Your task to perform on an android device: turn pop-ups off in chrome Image 0: 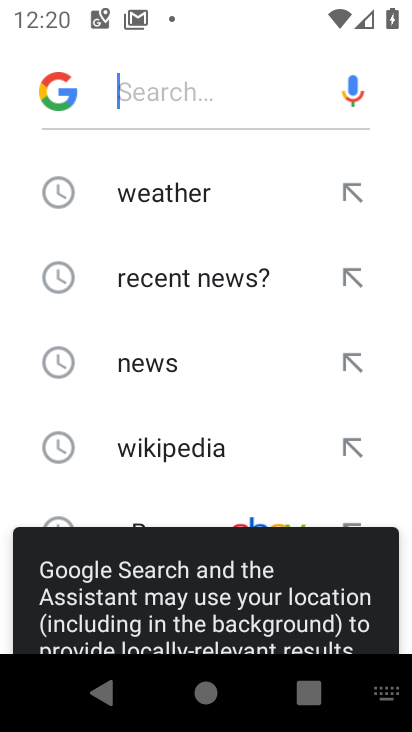
Step 0: press home button
Your task to perform on an android device: turn pop-ups off in chrome Image 1: 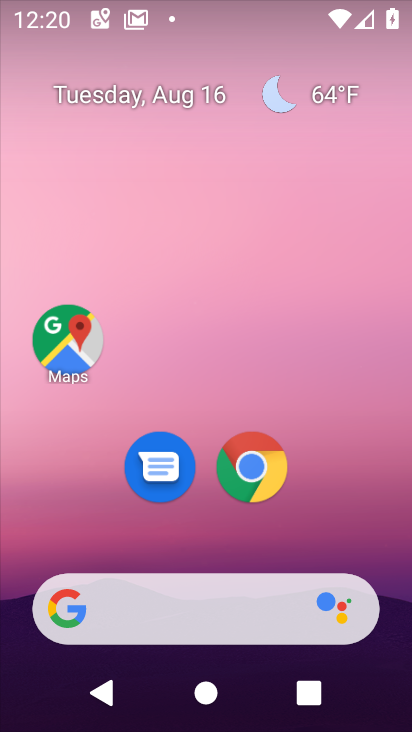
Step 1: drag from (357, 539) to (387, 101)
Your task to perform on an android device: turn pop-ups off in chrome Image 2: 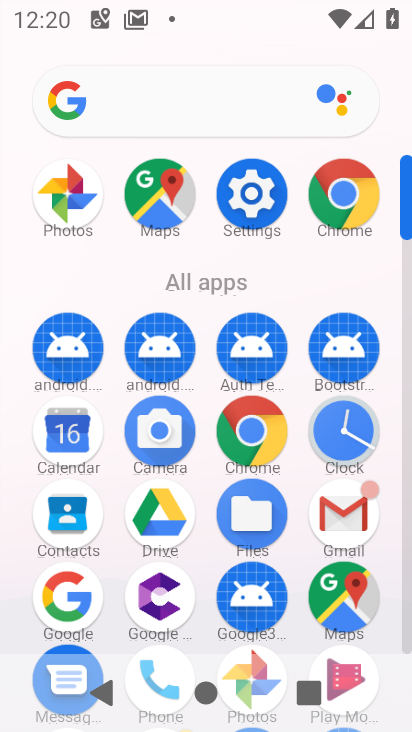
Step 2: click (350, 193)
Your task to perform on an android device: turn pop-ups off in chrome Image 3: 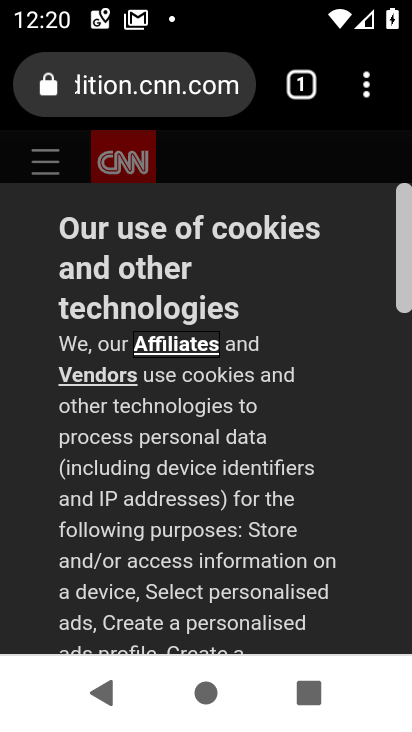
Step 3: click (368, 87)
Your task to perform on an android device: turn pop-ups off in chrome Image 4: 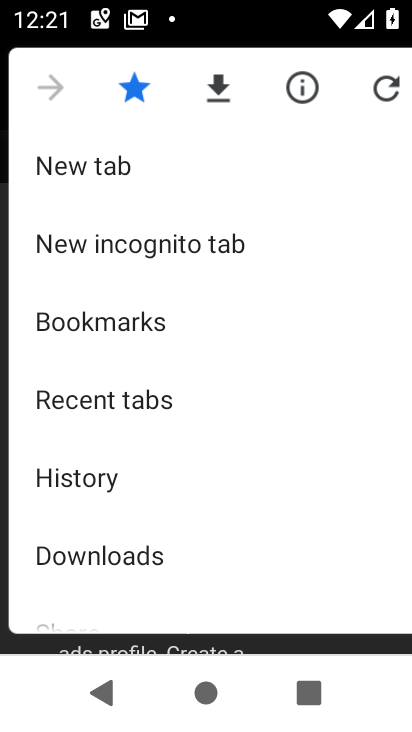
Step 4: drag from (345, 429) to (350, 328)
Your task to perform on an android device: turn pop-ups off in chrome Image 5: 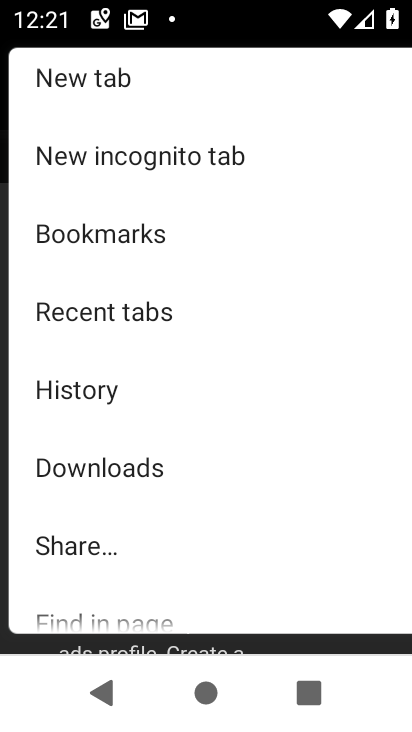
Step 5: drag from (339, 463) to (339, 385)
Your task to perform on an android device: turn pop-ups off in chrome Image 6: 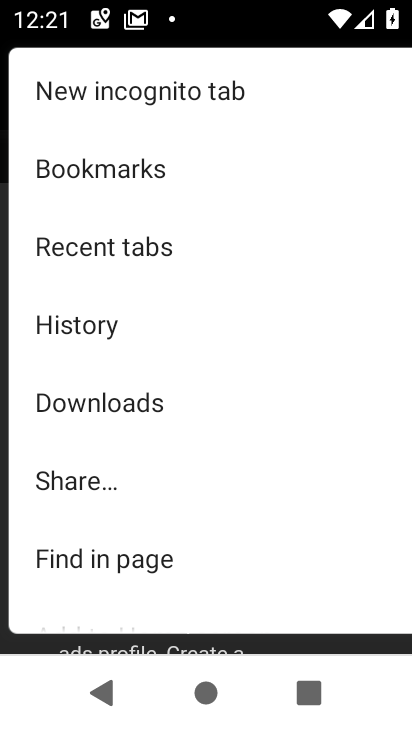
Step 6: drag from (329, 522) to (326, 371)
Your task to perform on an android device: turn pop-ups off in chrome Image 7: 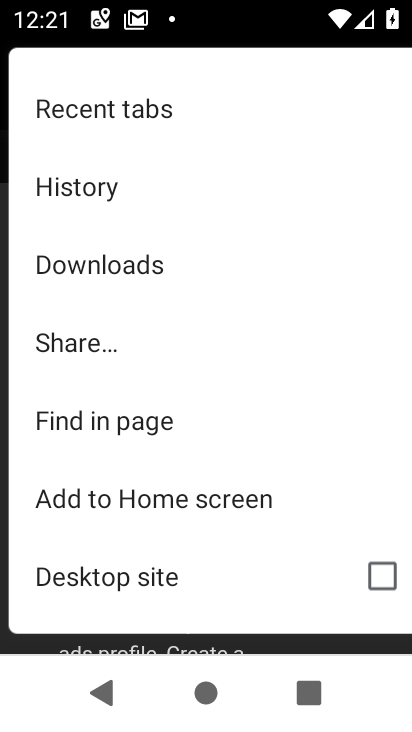
Step 7: drag from (314, 561) to (316, 413)
Your task to perform on an android device: turn pop-ups off in chrome Image 8: 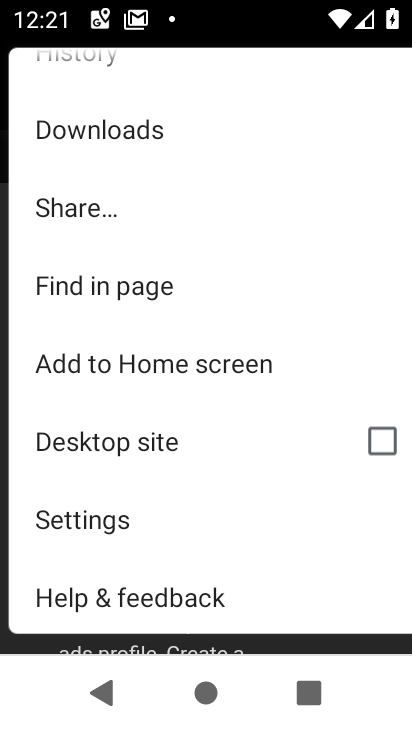
Step 8: drag from (310, 526) to (312, 376)
Your task to perform on an android device: turn pop-ups off in chrome Image 9: 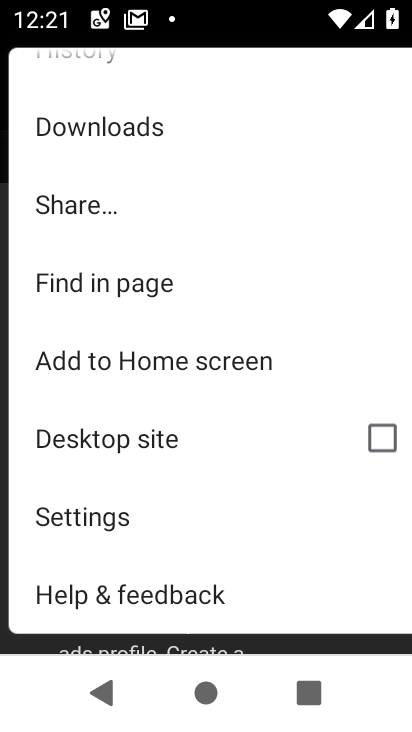
Step 9: click (156, 531)
Your task to perform on an android device: turn pop-ups off in chrome Image 10: 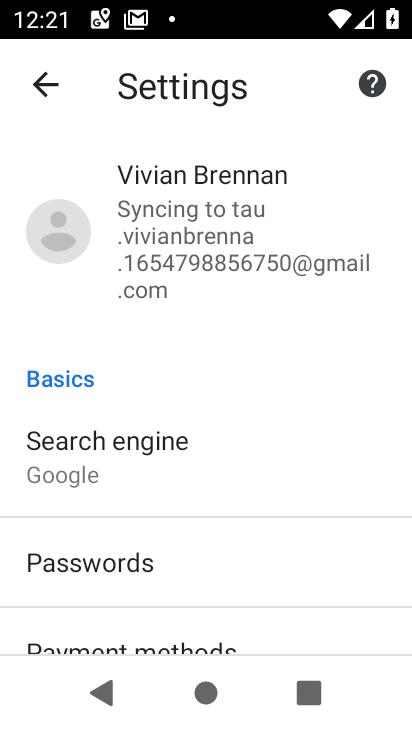
Step 10: drag from (278, 521) to (283, 385)
Your task to perform on an android device: turn pop-ups off in chrome Image 11: 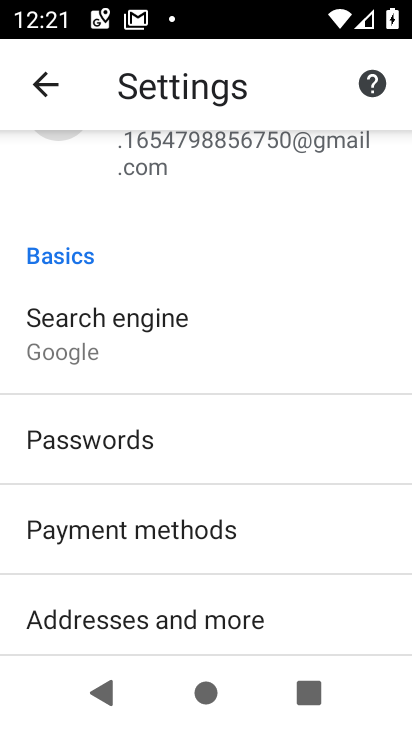
Step 11: drag from (298, 434) to (304, 362)
Your task to perform on an android device: turn pop-ups off in chrome Image 12: 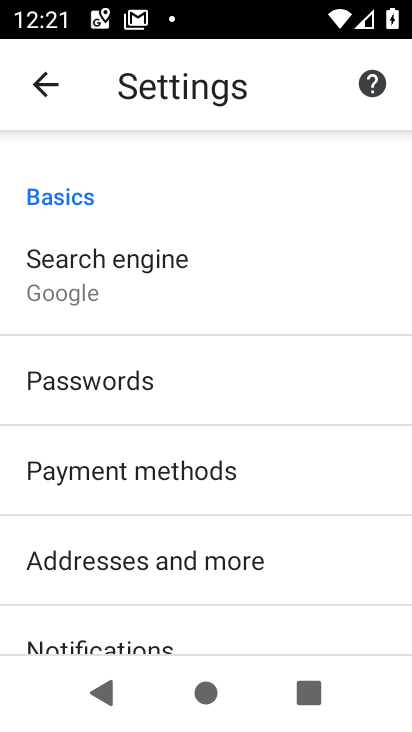
Step 12: drag from (296, 519) to (310, 409)
Your task to perform on an android device: turn pop-ups off in chrome Image 13: 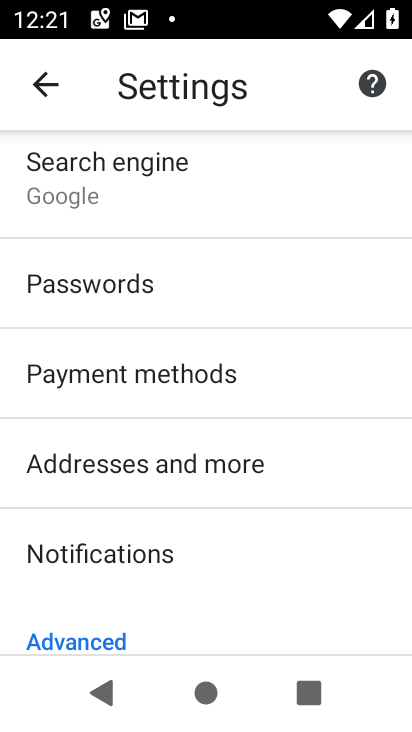
Step 13: drag from (319, 543) to (335, 402)
Your task to perform on an android device: turn pop-ups off in chrome Image 14: 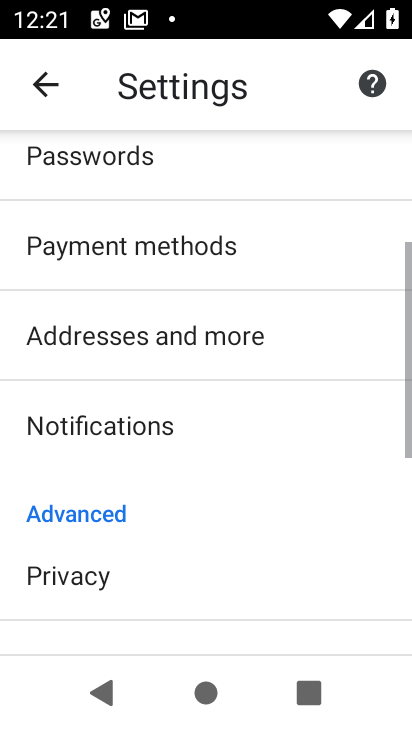
Step 14: drag from (357, 412) to (358, 355)
Your task to perform on an android device: turn pop-ups off in chrome Image 15: 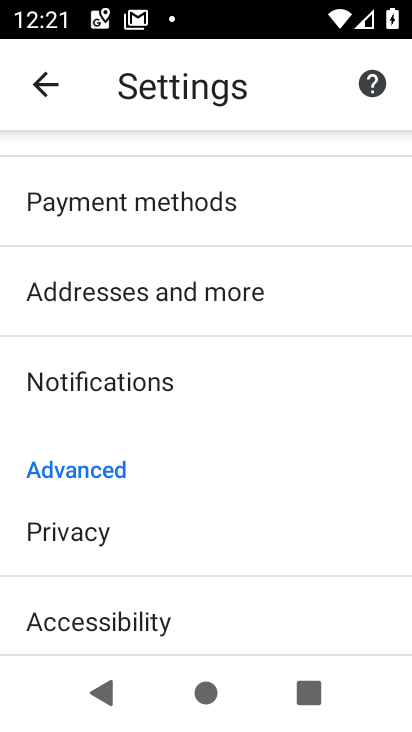
Step 15: drag from (308, 552) to (308, 457)
Your task to perform on an android device: turn pop-ups off in chrome Image 16: 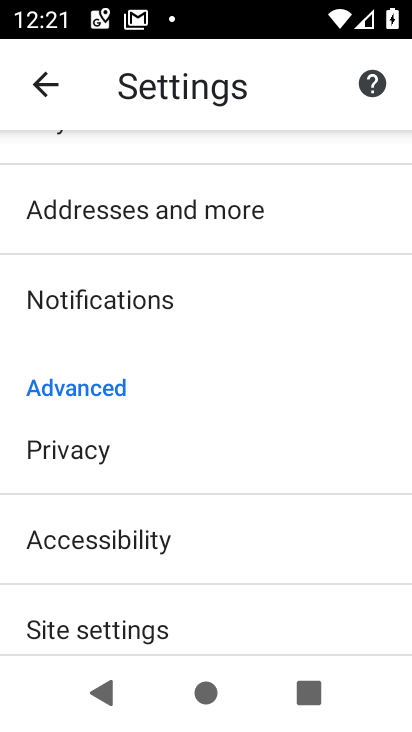
Step 16: drag from (290, 574) to (290, 437)
Your task to perform on an android device: turn pop-ups off in chrome Image 17: 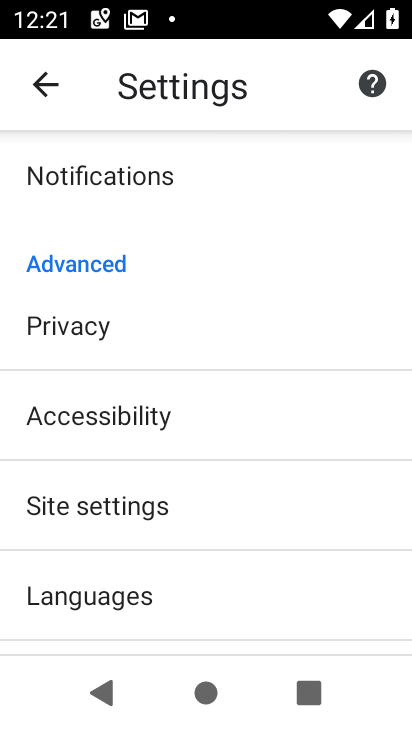
Step 17: drag from (280, 596) to (280, 475)
Your task to perform on an android device: turn pop-ups off in chrome Image 18: 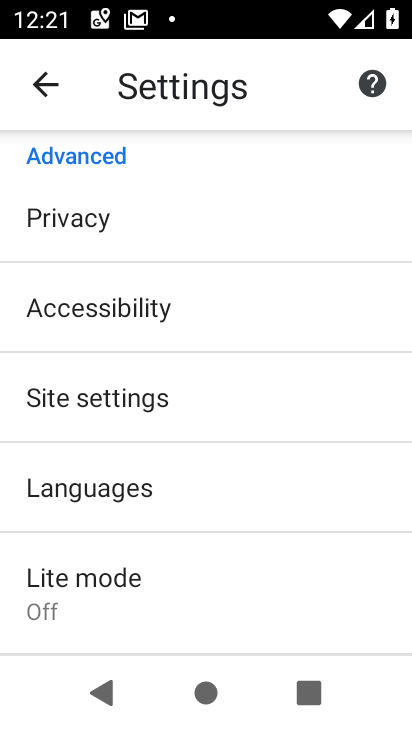
Step 18: click (251, 386)
Your task to perform on an android device: turn pop-ups off in chrome Image 19: 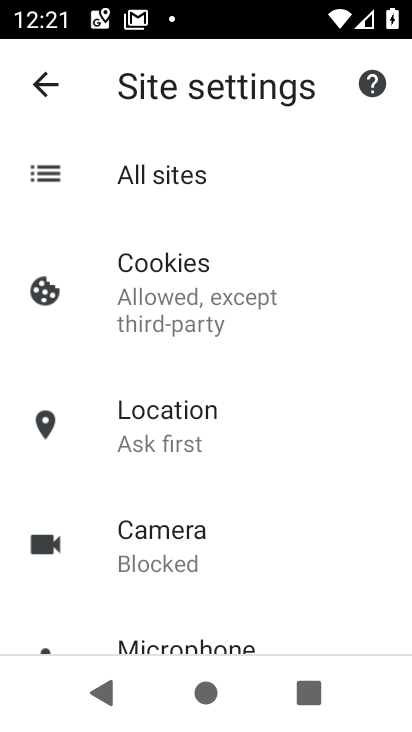
Step 19: drag from (326, 560) to (334, 450)
Your task to perform on an android device: turn pop-ups off in chrome Image 20: 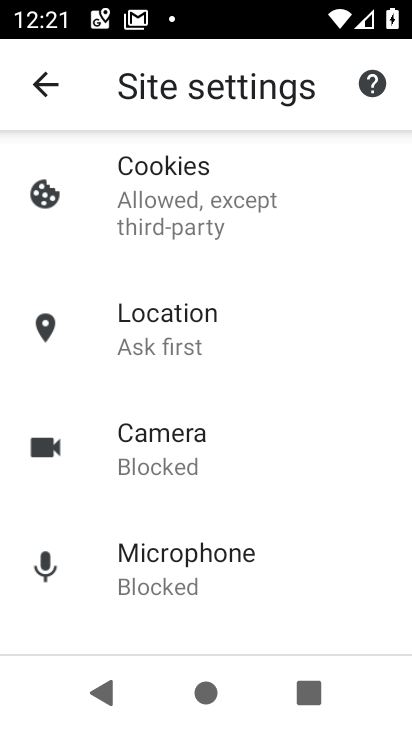
Step 20: drag from (312, 556) to (315, 469)
Your task to perform on an android device: turn pop-ups off in chrome Image 21: 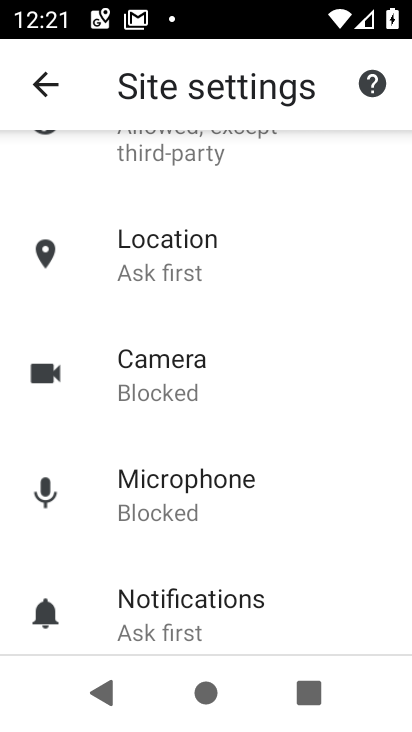
Step 21: drag from (318, 562) to (327, 429)
Your task to perform on an android device: turn pop-ups off in chrome Image 22: 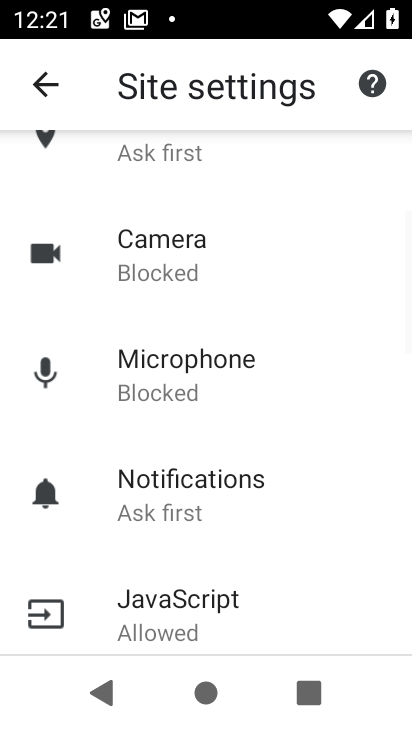
Step 22: drag from (341, 576) to (349, 501)
Your task to perform on an android device: turn pop-ups off in chrome Image 23: 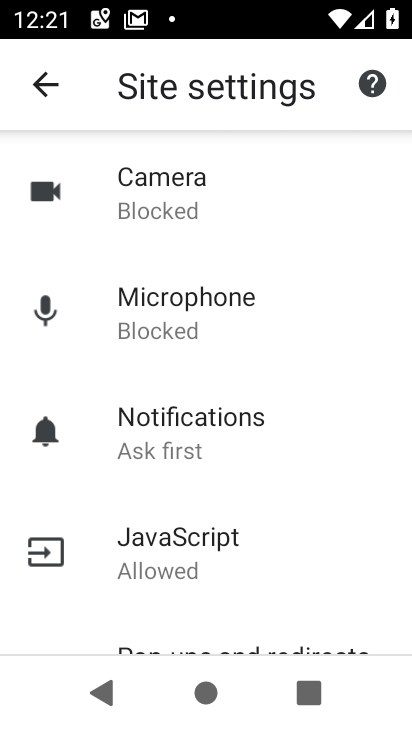
Step 23: drag from (325, 569) to (339, 424)
Your task to perform on an android device: turn pop-ups off in chrome Image 24: 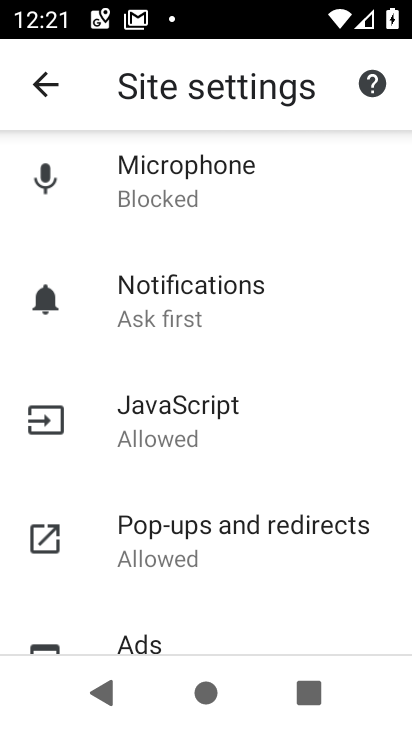
Step 24: drag from (318, 539) to (323, 389)
Your task to perform on an android device: turn pop-ups off in chrome Image 25: 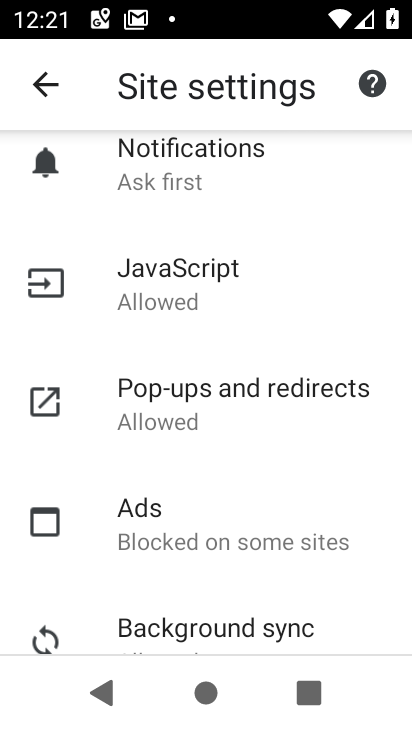
Step 25: click (288, 413)
Your task to perform on an android device: turn pop-ups off in chrome Image 26: 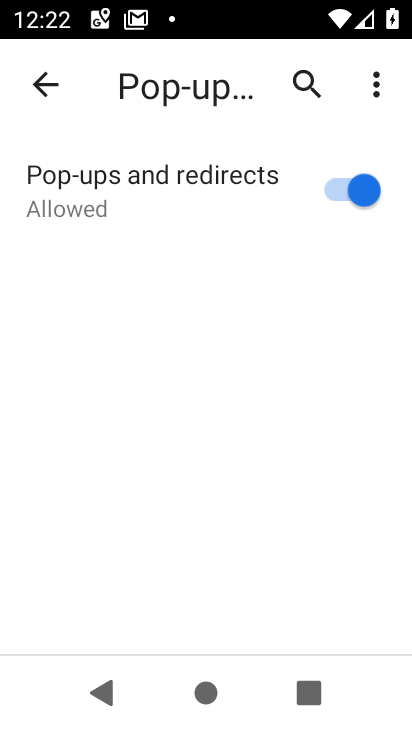
Step 26: click (360, 196)
Your task to perform on an android device: turn pop-ups off in chrome Image 27: 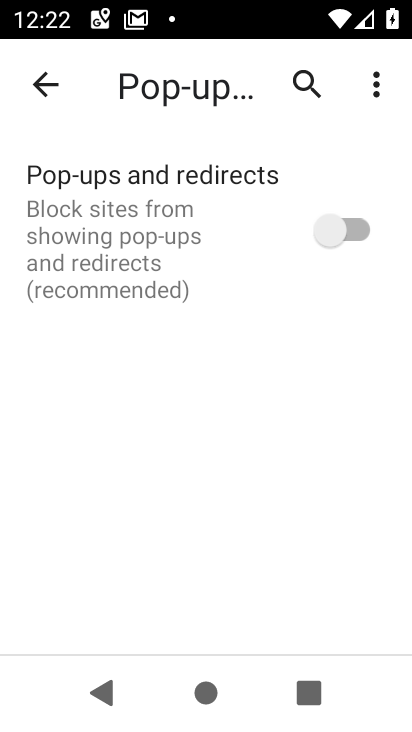
Step 27: task complete